Your task to perform on an android device: turn off picture-in-picture Image 0: 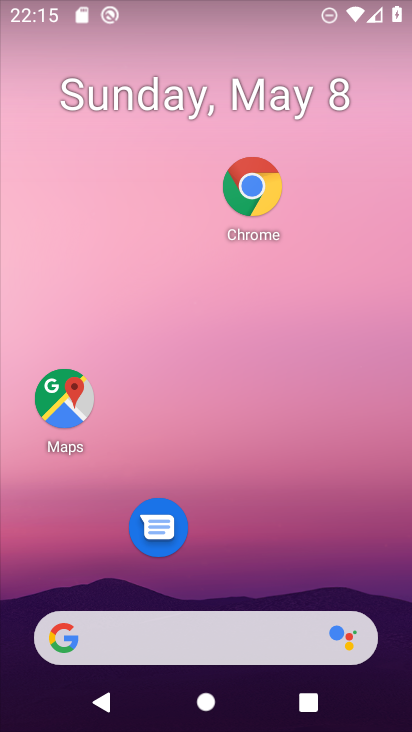
Step 0: click (317, 272)
Your task to perform on an android device: turn off picture-in-picture Image 1: 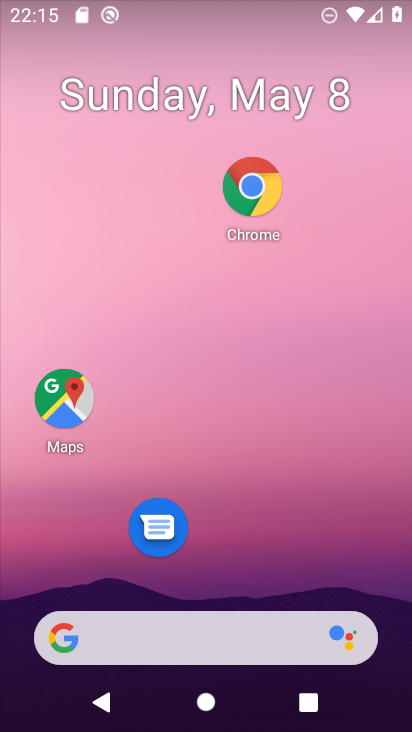
Step 1: drag from (231, 566) to (288, 250)
Your task to perform on an android device: turn off picture-in-picture Image 2: 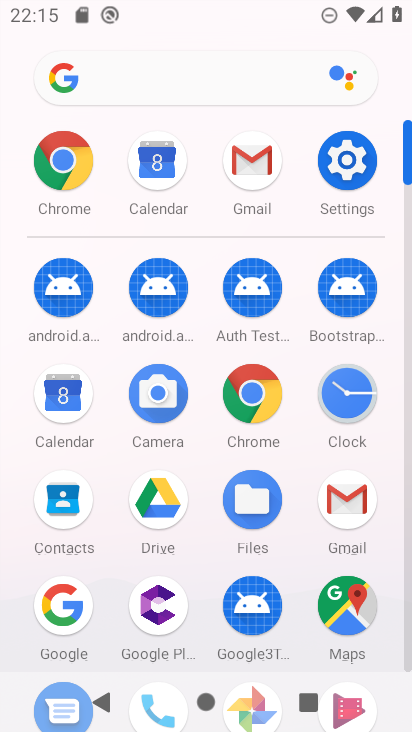
Step 2: click (340, 143)
Your task to perform on an android device: turn off picture-in-picture Image 3: 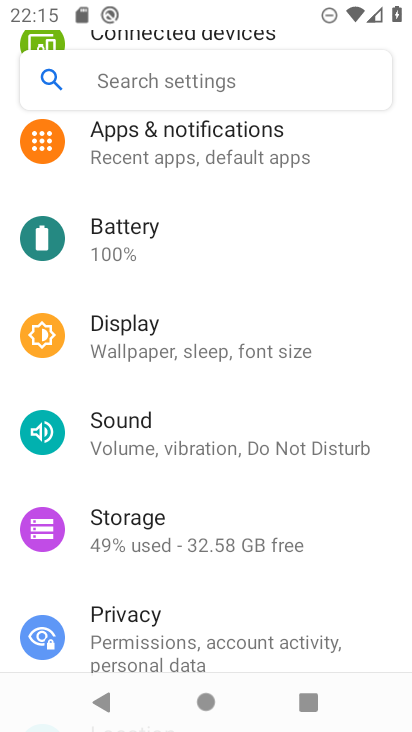
Step 3: click (257, 144)
Your task to perform on an android device: turn off picture-in-picture Image 4: 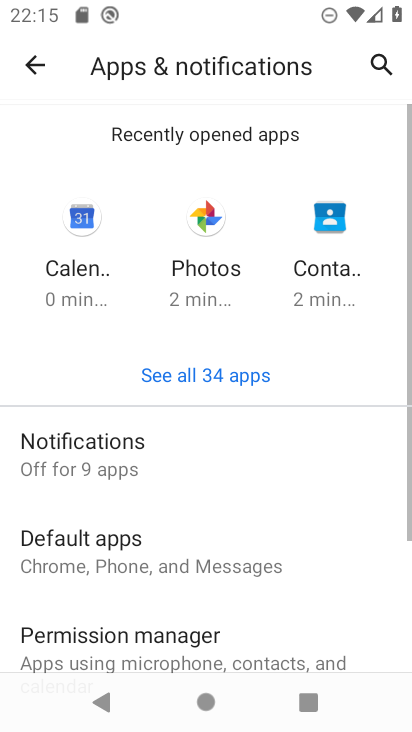
Step 4: drag from (272, 612) to (315, 315)
Your task to perform on an android device: turn off picture-in-picture Image 5: 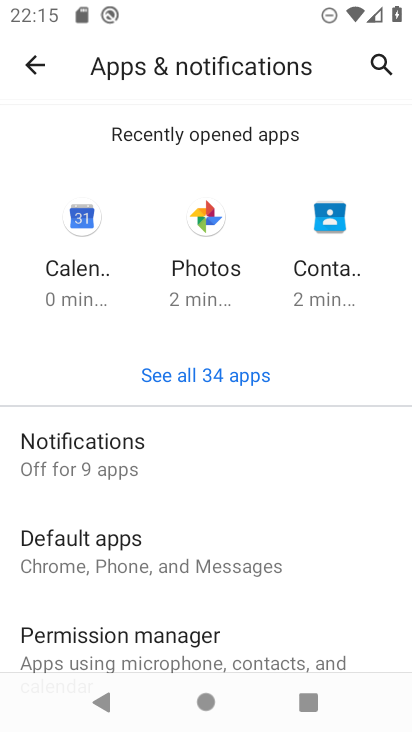
Step 5: click (187, 438)
Your task to perform on an android device: turn off picture-in-picture Image 6: 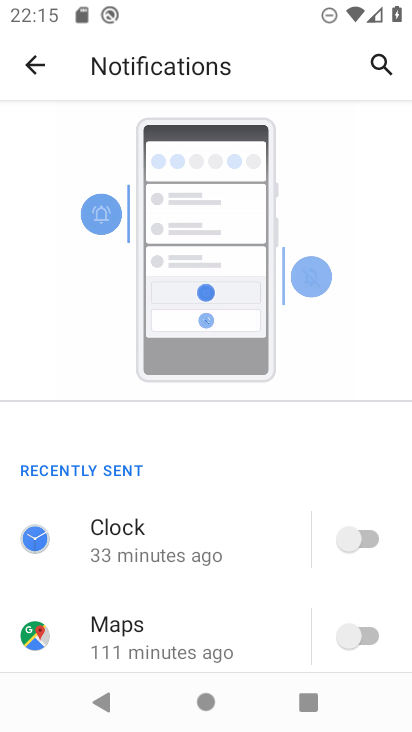
Step 6: drag from (233, 609) to (382, 100)
Your task to perform on an android device: turn off picture-in-picture Image 7: 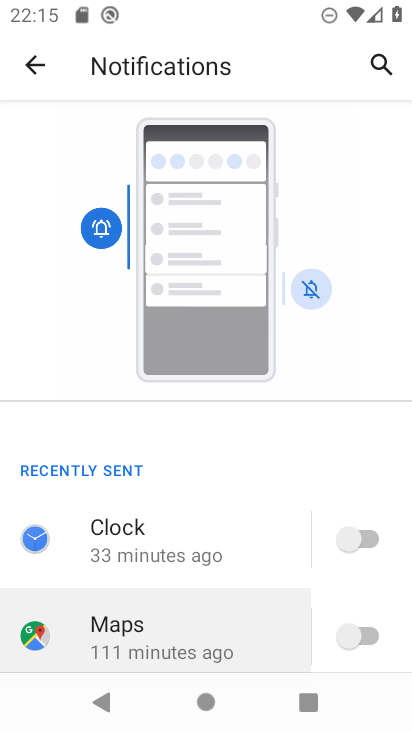
Step 7: drag from (216, 559) to (245, 260)
Your task to perform on an android device: turn off picture-in-picture Image 8: 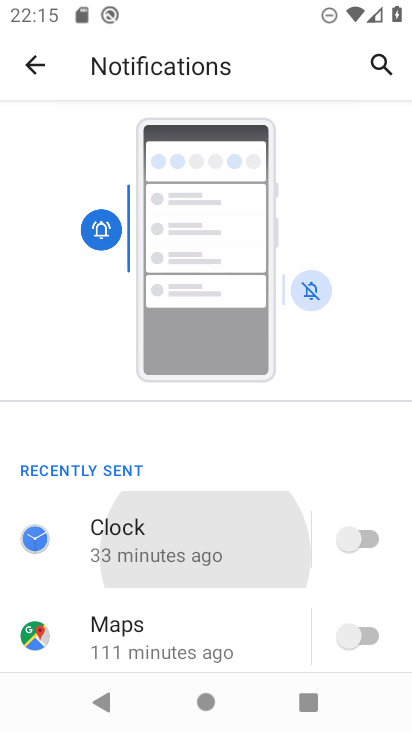
Step 8: drag from (193, 413) to (260, 68)
Your task to perform on an android device: turn off picture-in-picture Image 9: 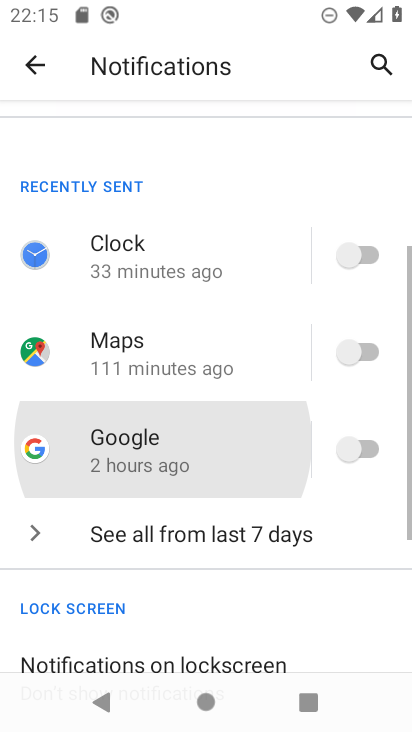
Step 9: drag from (197, 488) to (264, 132)
Your task to perform on an android device: turn off picture-in-picture Image 10: 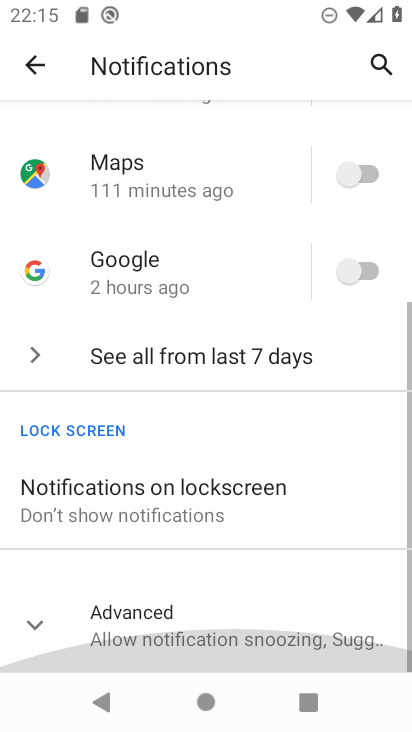
Step 10: drag from (200, 464) to (291, 101)
Your task to perform on an android device: turn off picture-in-picture Image 11: 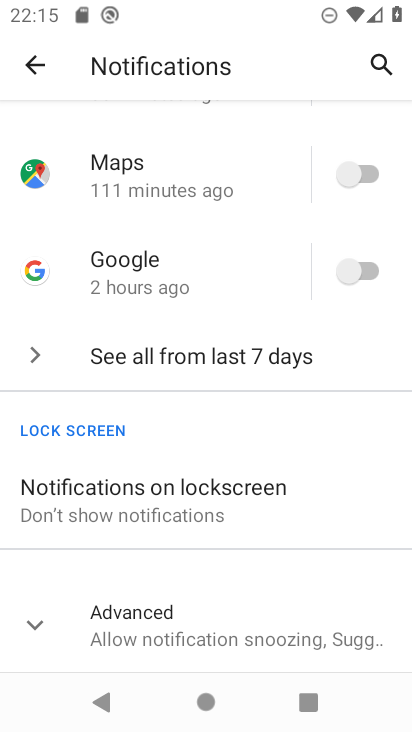
Step 11: click (202, 623)
Your task to perform on an android device: turn off picture-in-picture Image 12: 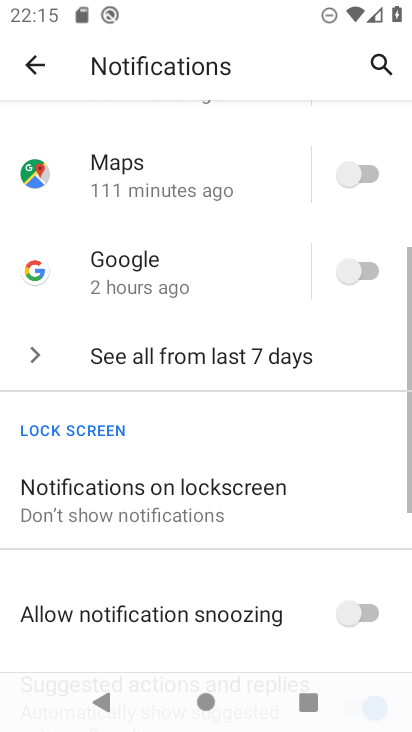
Step 12: drag from (222, 603) to (251, 240)
Your task to perform on an android device: turn off picture-in-picture Image 13: 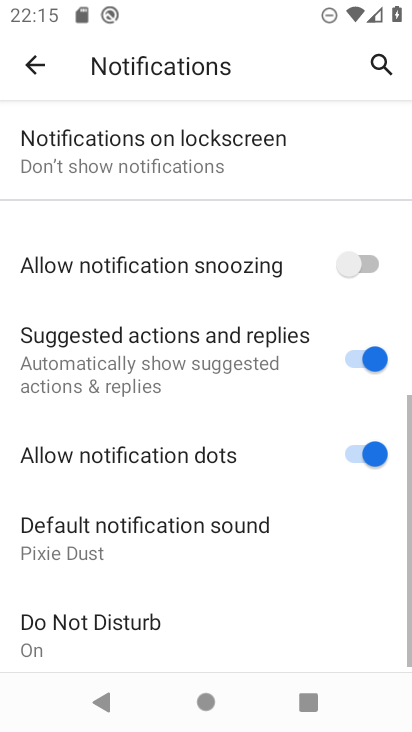
Step 13: drag from (207, 318) to (290, 9)
Your task to perform on an android device: turn off picture-in-picture Image 14: 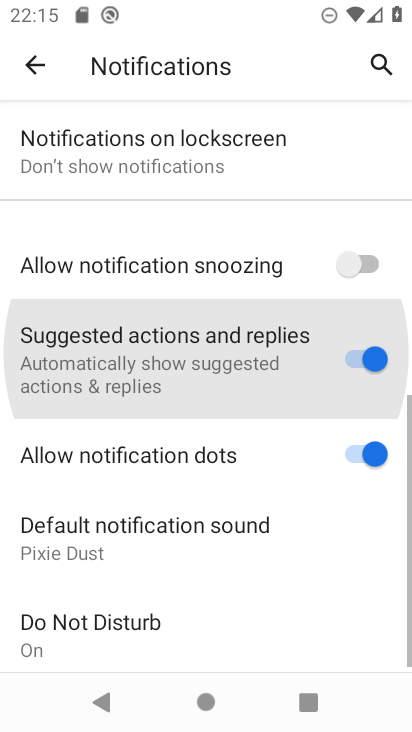
Step 14: drag from (235, 424) to (336, 47)
Your task to perform on an android device: turn off picture-in-picture Image 15: 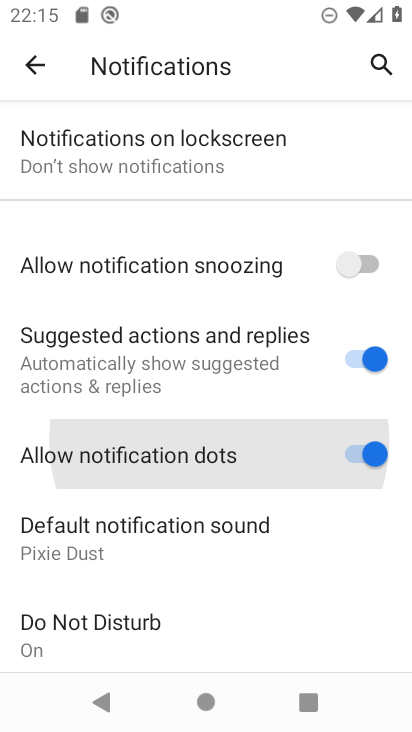
Step 15: drag from (206, 577) to (311, 192)
Your task to perform on an android device: turn off picture-in-picture Image 16: 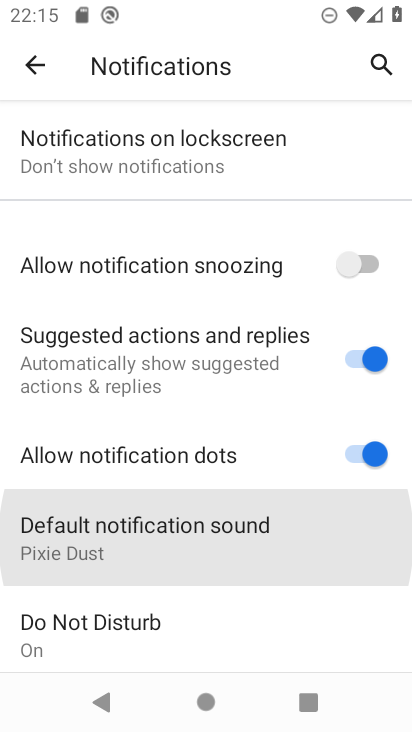
Step 16: drag from (252, 560) to (306, 222)
Your task to perform on an android device: turn off picture-in-picture Image 17: 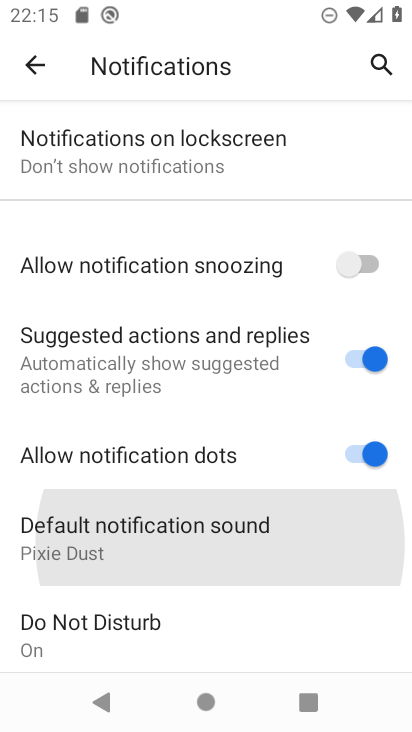
Step 17: drag from (196, 647) to (247, 315)
Your task to perform on an android device: turn off picture-in-picture Image 18: 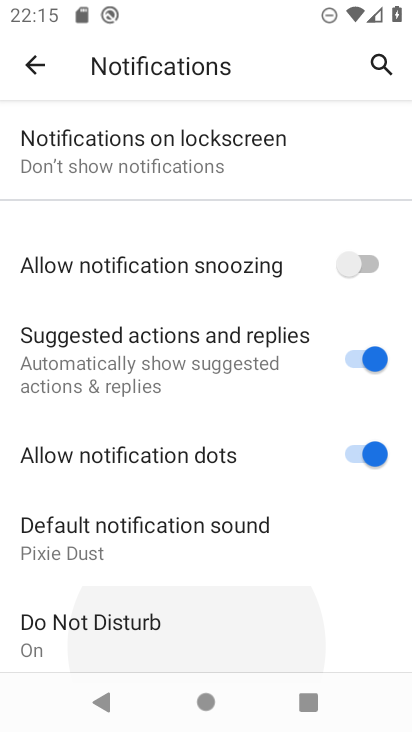
Step 18: drag from (189, 634) to (248, 287)
Your task to perform on an android device: turn off picture-in-picture Image 19: 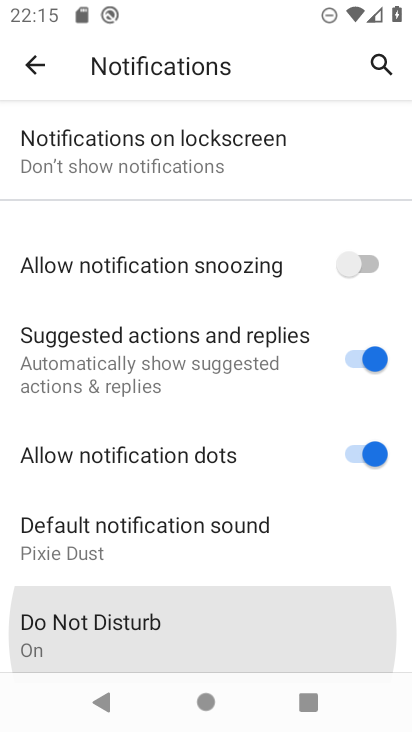
Step 19: drag from (173, 631) to (232, 302)
Your task to perform on an android device: turn off picture-in-picture Image 20: 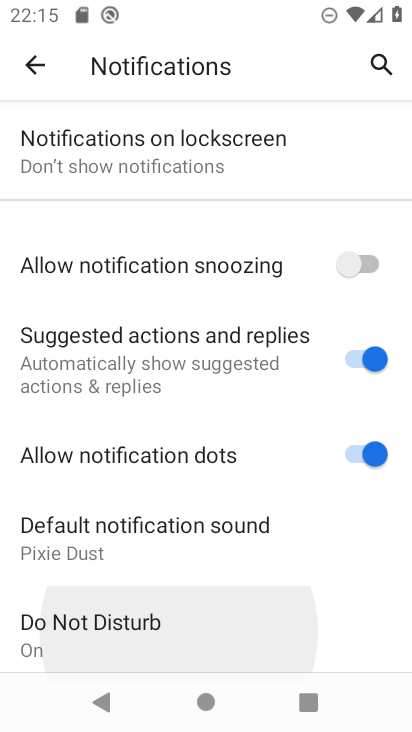
Step 20: drag from (186, 652) to (253, 291)
Your task to perform on an android device: turn off picture-in-picture Image 21: 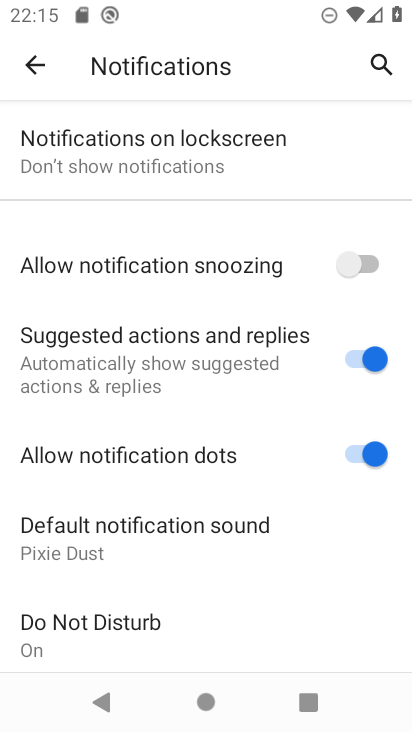
Step 21: drag from (204, 606) to (204, 299)
Your task to perform on an android device: turn off picture-in-picture Image 22: 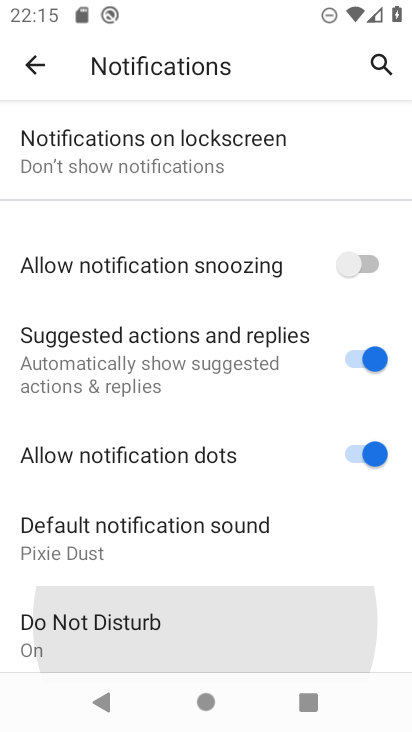
Step 22: drag from (173, 532) to (194, 333)
Your task to perform on an android device: turn off picture-in-picture Image 23: 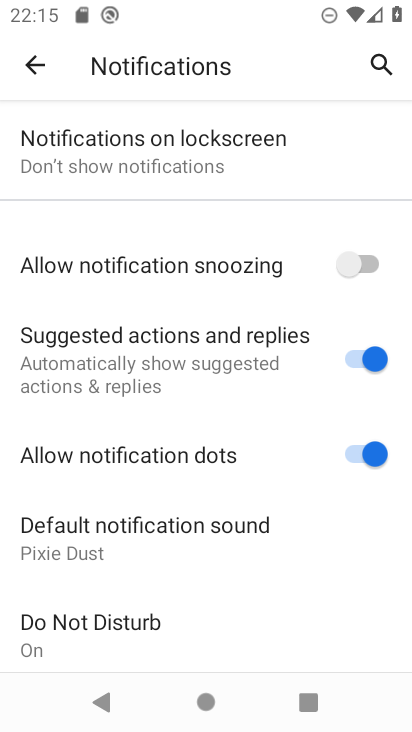
Step 23: click (139, 163)
Your task to perform on an android device: turn off picture-in-picture Image 24: 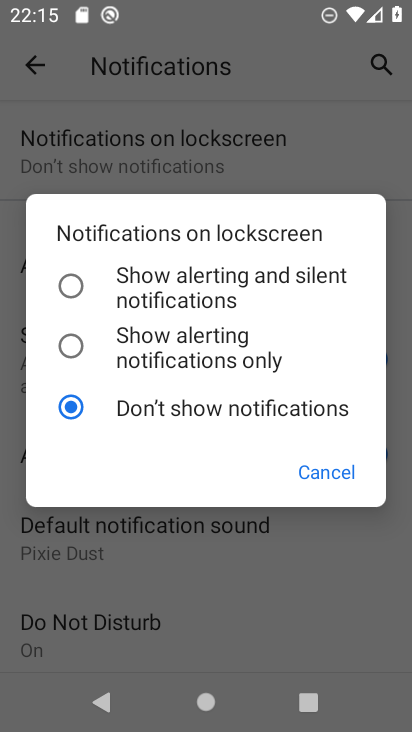
Step 24: click (308, 468)
Your task to perform on an android device: turn off picture-in-picture Image 25: 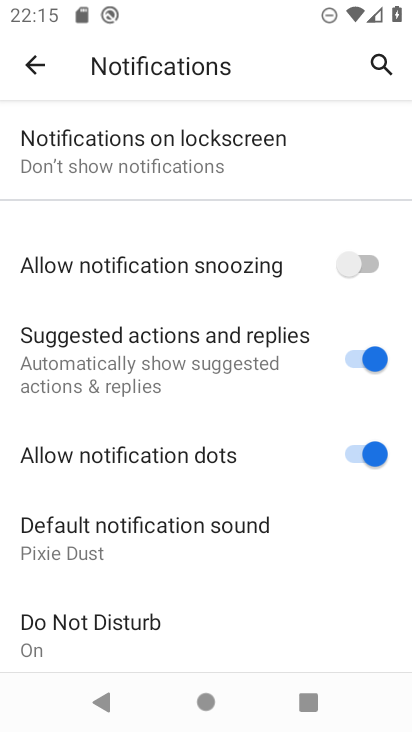
Step 25: click (33, 68)
Your task to perform on an android device: turn off picture-in-picture Image 26: 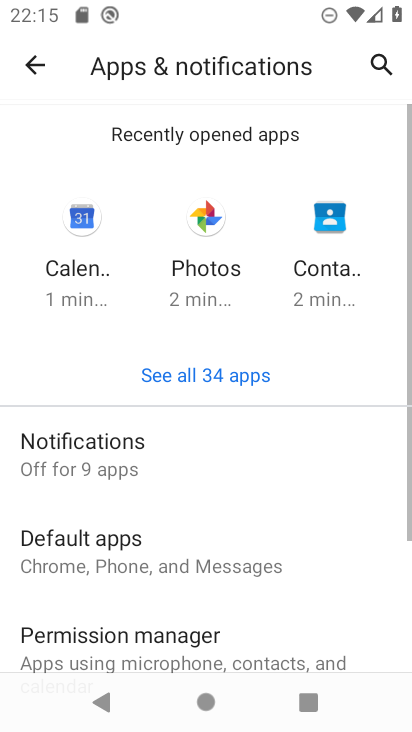
Step 26: drag from (211, 543) to (318, 228)
Your task to perform on an android device: turn off picture-in-picture Image 27: 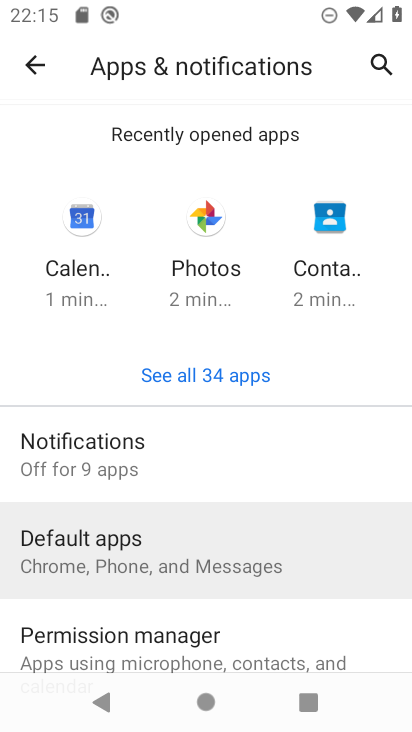
Step 27: drag from (277, 597) to (313, 281)
Your task to perform on an android device: turn off picture-in-picture Image 28: 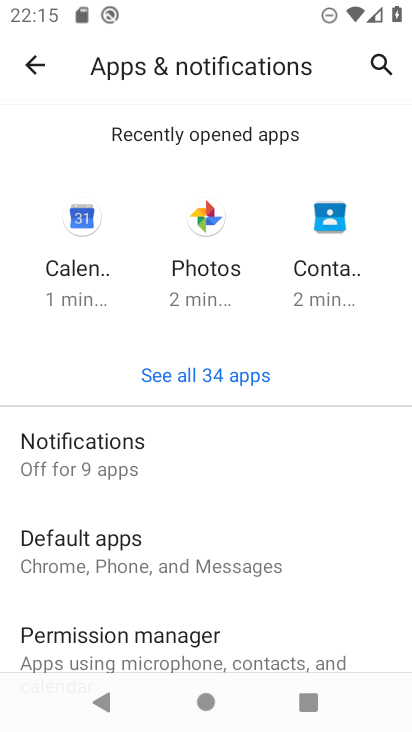
Step 28: click (256, 252)
Your task to perform on an android device: turn off picture-in-picture Image 29: 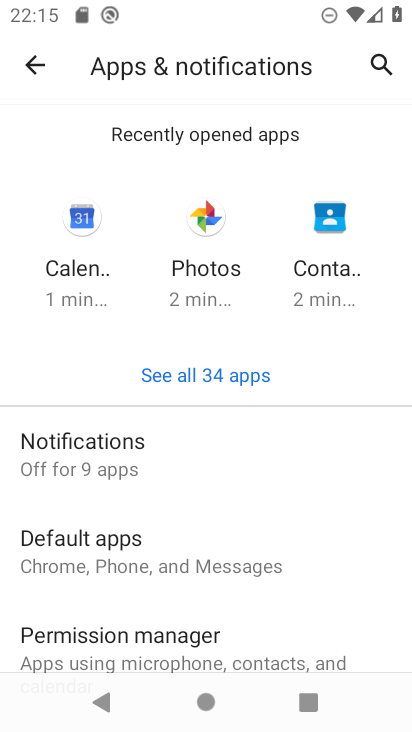
Step 29: drag from (242, 600) to (287, 271)
Your task to perform on an android device: turn off picture-in-picture Image 30: 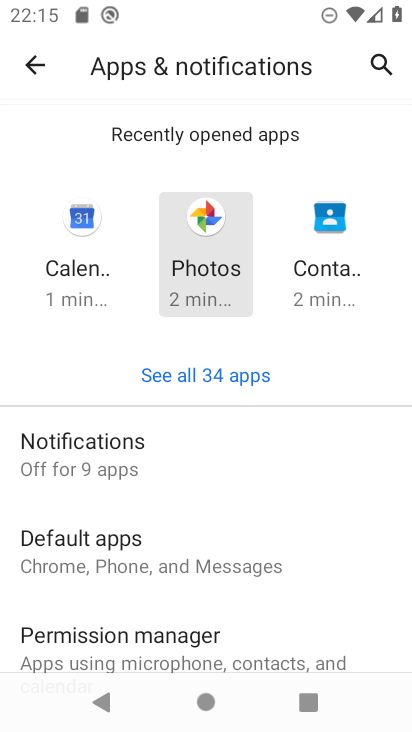
Step 30: drag from (235, 512) to (296, 256)
Your task to perform on an android device: turn off picture-in-picture Image 31: 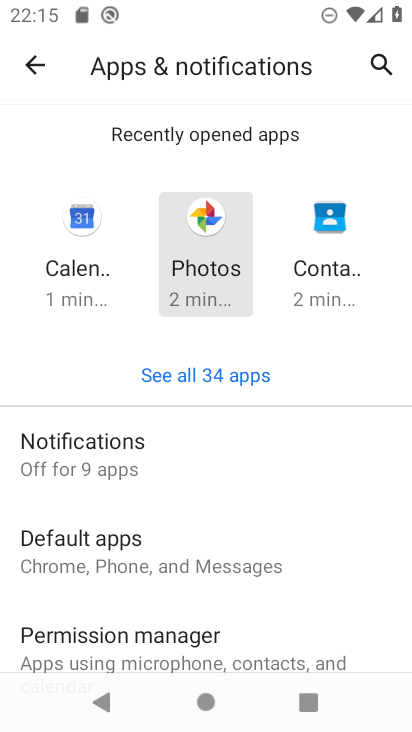
Step 31: drag from (263, 658) to (346, 394)
Your task to perform on an android device: turn off picture-in-picture Image 32: 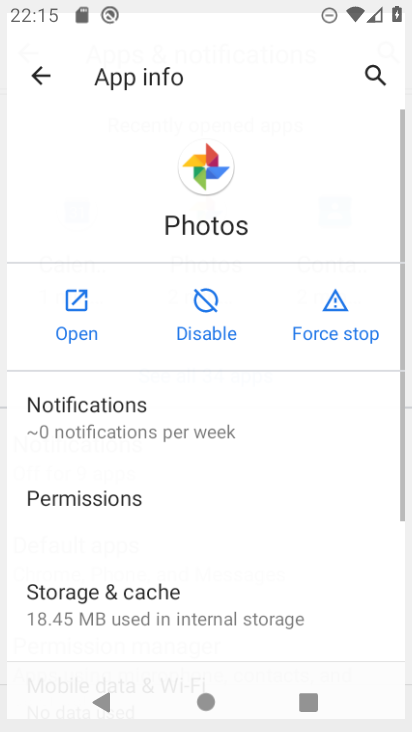
Step 32: drag from (322, 533) to (356, 353)
Your task to perform on an android device: turn off picture-in-picture Image 33: 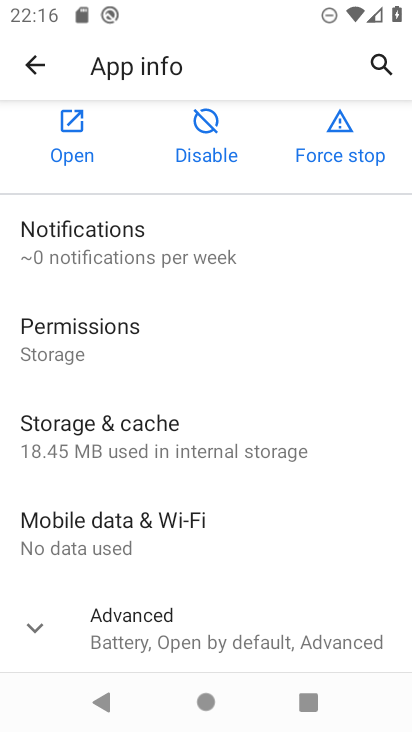
Step 33: click (28, 61)
Your task to perform on an android device: turn off picture-in-picture Image 34: 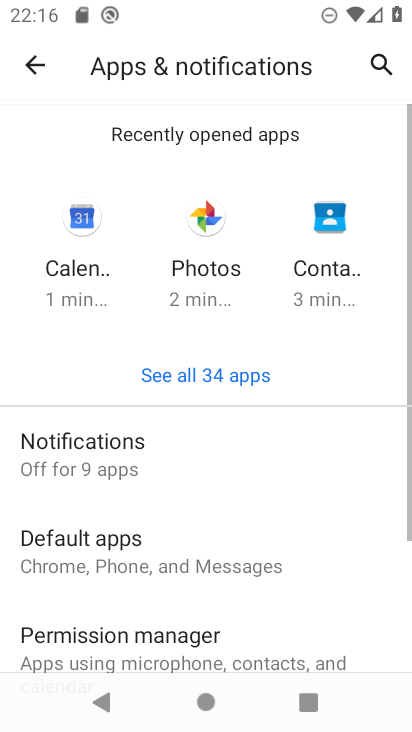
Step 34: drag from (237, 589) to (272, 300)
Your task to perform on an android device: turn off picture-in-picture Image 35: 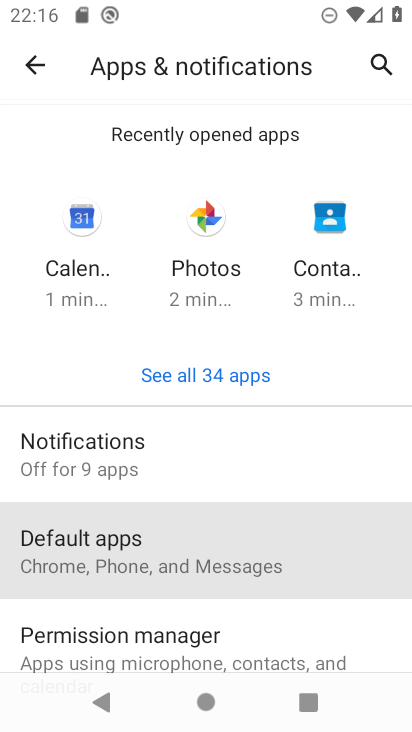
Step 35: drag from (315, 680) to (352, 331)
Your task to perform on an android device: turn off picture-in-picture Image 36: 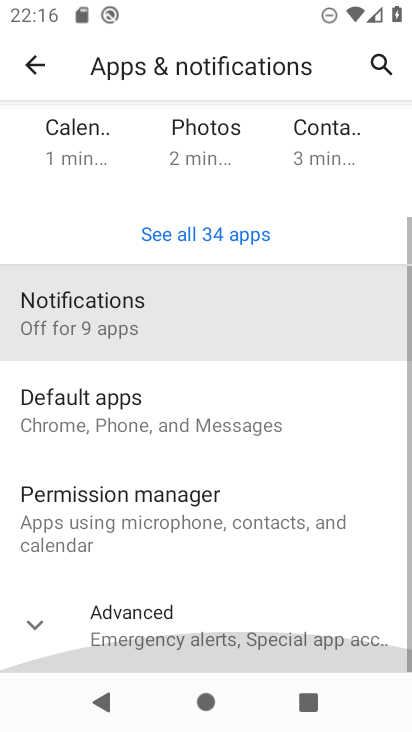
Step 36: drag from (297, 518) to (315, 275)
Your task to perform on an android device: turn off picture-in-picture Image 37: 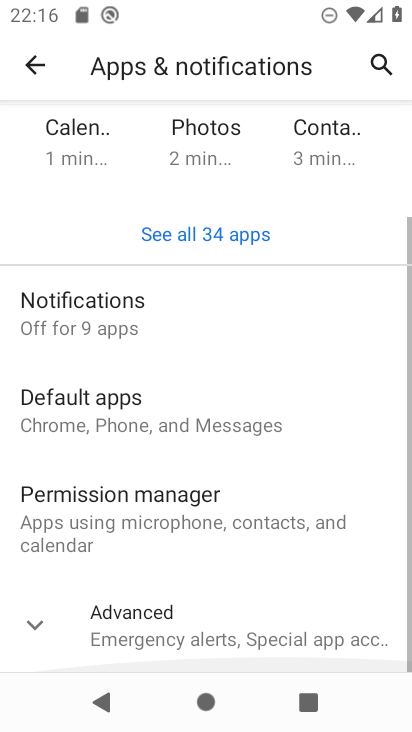
Step 37: drag from (297, 593) to (354, 306)
Your task to perform on an android device: turn off picture-in-picture Image 38: 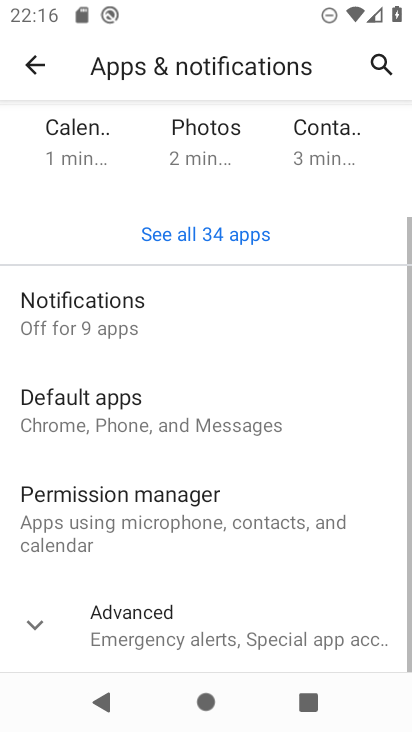
Step 38: drag from (303, 476) to (327, 276)
Your task to perform on an android device: turn off picture-in-picture Image 39: 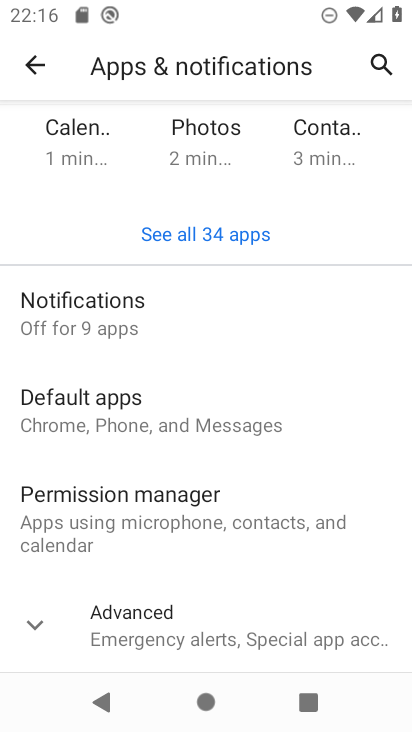
Step 39: click (244, 642)
Your task to perform on an android device: turn off picture-in-picture Image 40: 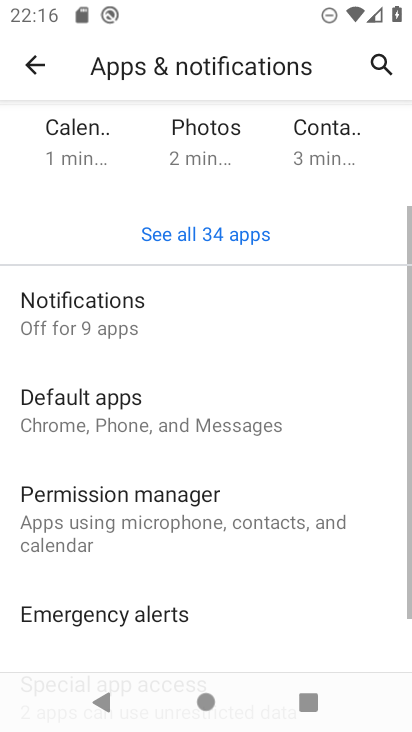
Step 40: drag from (263, 620) to (324, 221)
Your task to perform on an android device: turn off picture-in-picture Image 41: 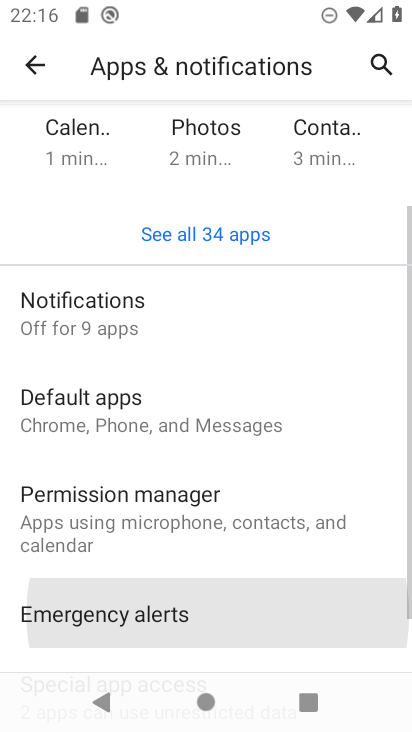
Step 41: drag from (298, 498) to (339, 269)
Your task to perform on an android device: turn off picture-in-picture Image 42: 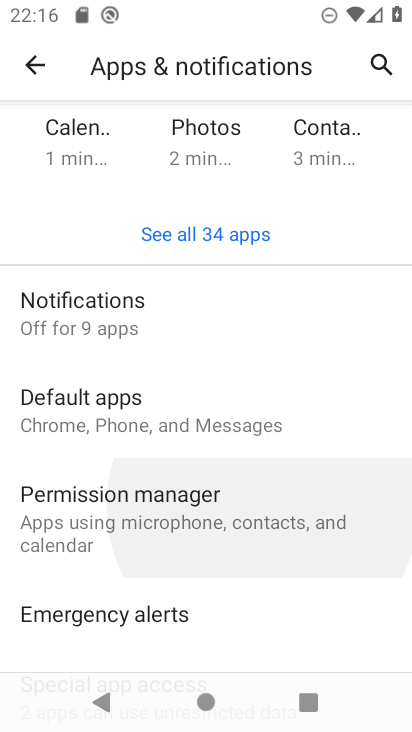
Step 42: drag from (298, 530) to (340, 182)
Your task to perform on an android device: turn off picture-in-picture Image 43: 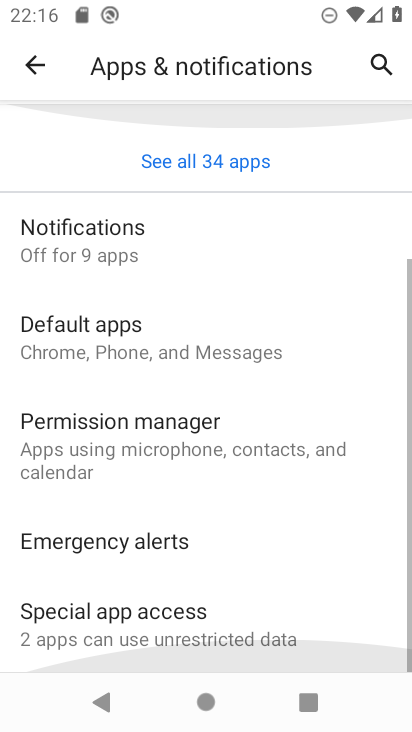
Step 43: drag from (298, 555) to (341, 251)
Your task to perform on an android device: turn off picture-in-picture Image 44: 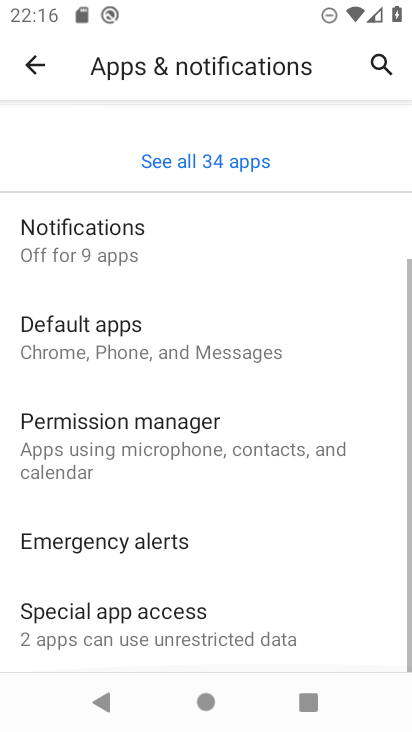
Step 44: drag from (259, 544) to (301, 219)
Your task to perform on an android device: turn off picture-in-picture Image 45: 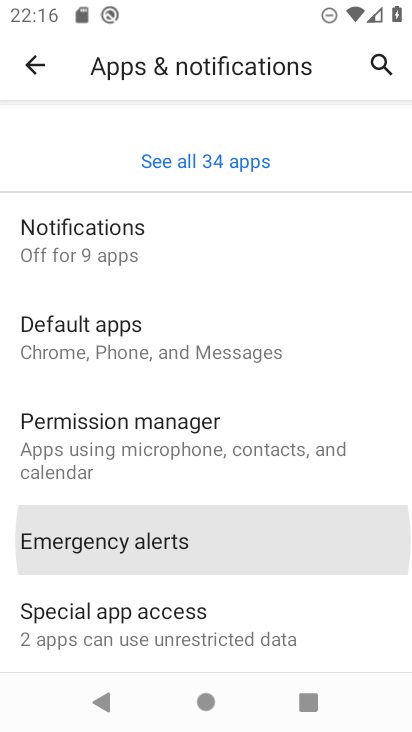
Step 45: drag from (249, 589) to (293, 359)
Your task to perform on an android device: turn off picture-in-picture Image 46: 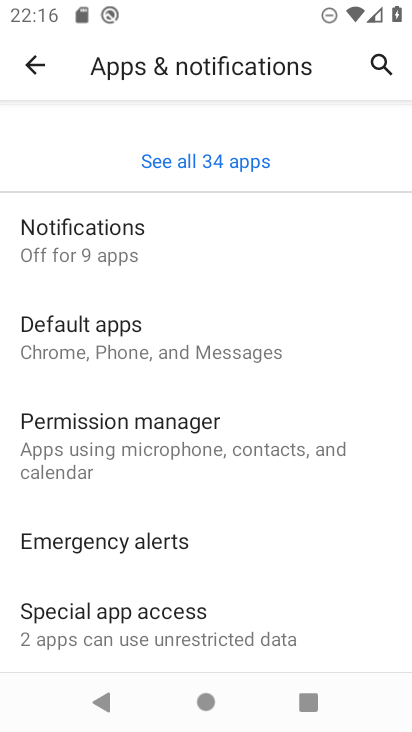
Step 46: click (241, 651)
Your task to perform on an android device: turn off picture-in-picture Image 47: 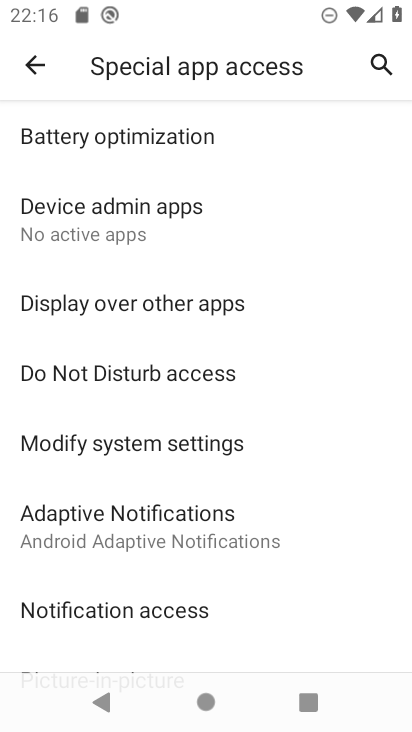
Step 47: drag from (241, 597) to (342, 163)
Your task to perform on an android device: turn off picture-in-picture Image 48: 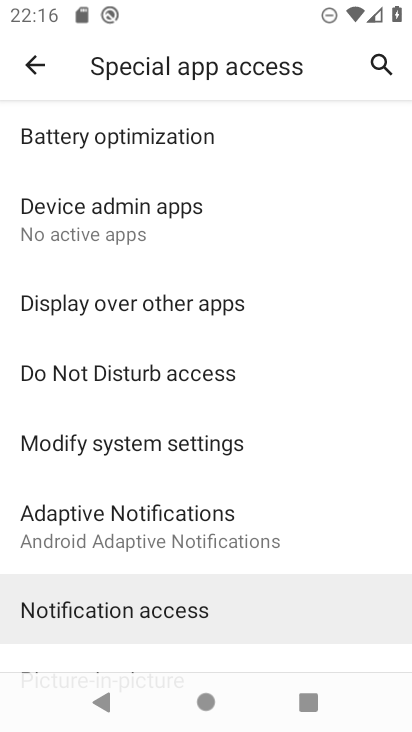
Step 48: drag from (291, 539) to (323, 370)
Your task to perform on an android device: turn off picture-in-picture Image 49: 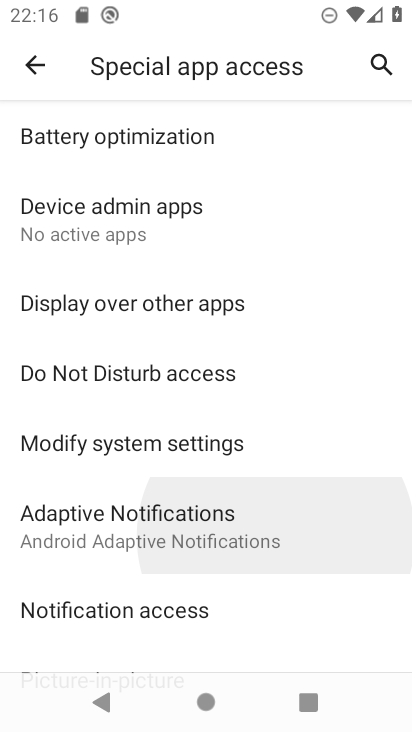
Step 49: drag from (211, 572) to (289, 324)
Your task to perform on an android device: turn off picture-in-picture Image 50: 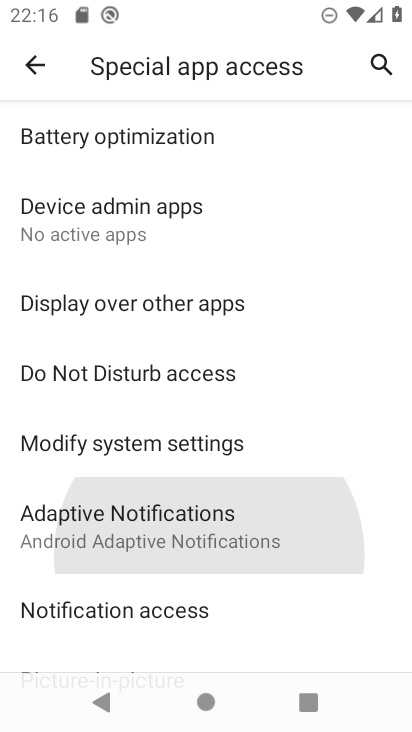
Step 50: drag from (248, 574) to (327, 324)
Your task to perform on an android device: turn off picture-in-picture Image 51: 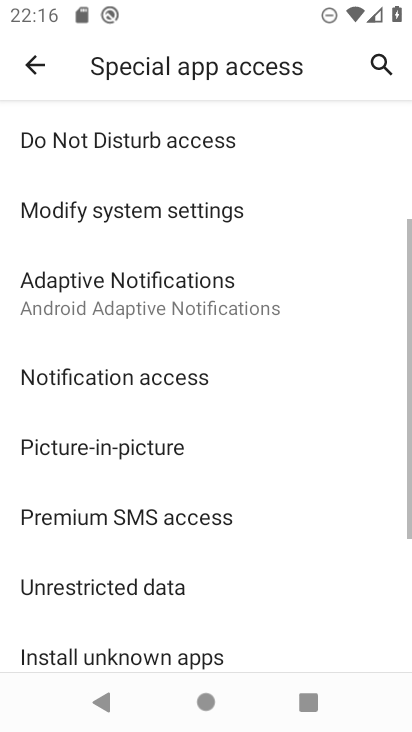
Step 51: drag from (261, 567) to (340, 293)
Your task to perform on an android device: turn off picture-in-picture Image 52: 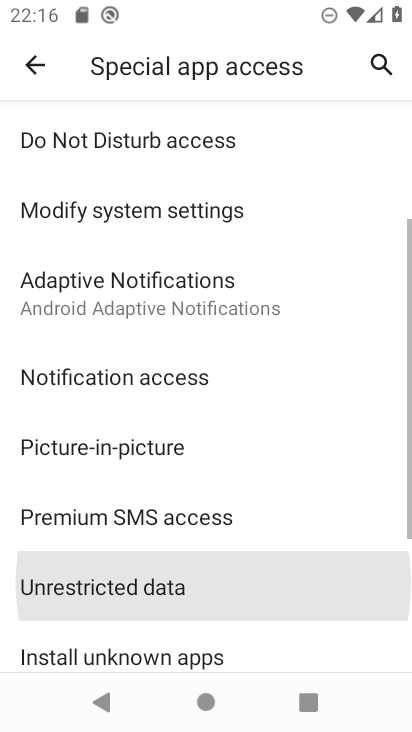
Step 52: drag from (273, 657) to (323, 366)
Your task to perform on an android device: turn off picture-in-picture Image 53: 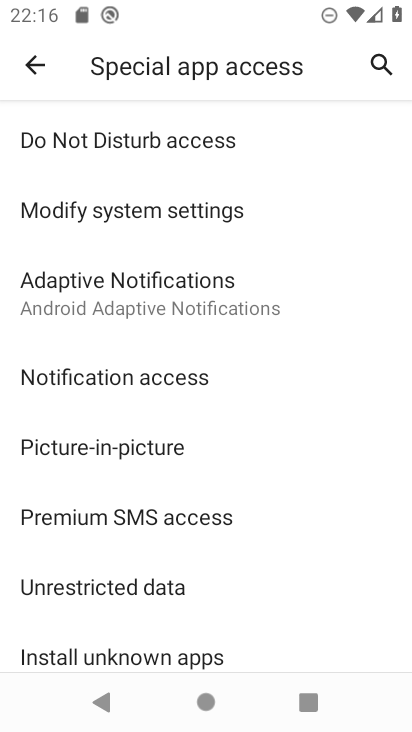
Step 53: click (106, 433)
Your task to perform on an android device: turn off picture-in-picture Image 54: 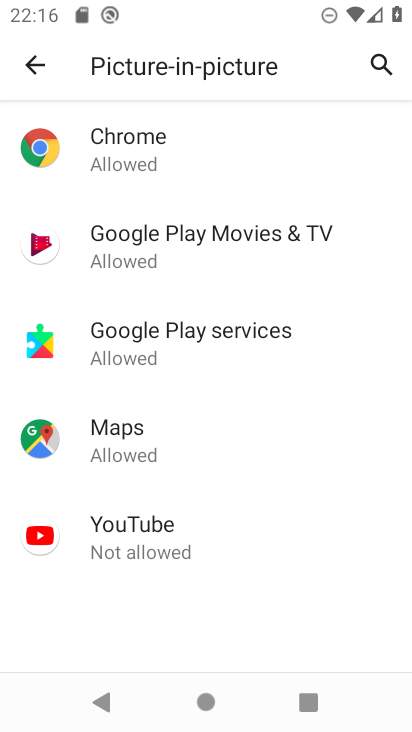
Step 54: click (153, 517)
Your task to perform on an android device: turn off picture-in-picture Image 55: 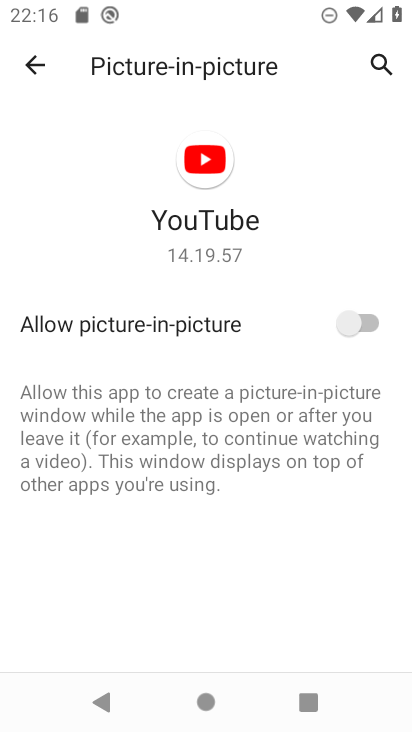
Step 55: click (377, 315)
Your task to perform on an android device: turn off picture-in-picture Image 56: 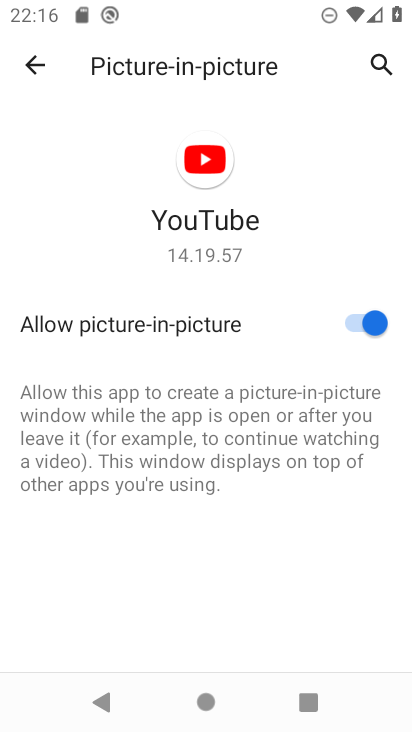
Step 56: task complete